Your task to perform on an android device: turn on showing notifications on the lock screen Image 0: 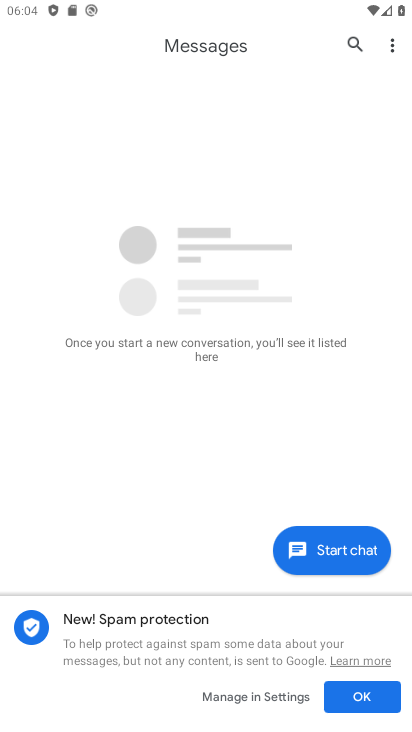
Step 0: press home button
Your task to perform on an android device: turn on showing notifications on the lock screen Image 1: 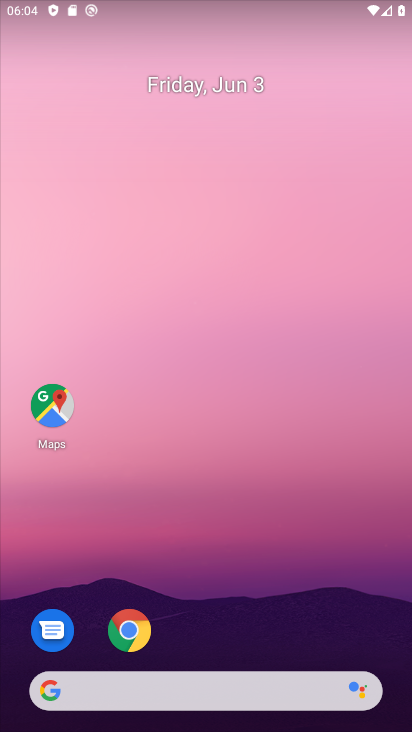
Step 1: drag from (187, 615) to (251, 180)
Your task to perform on an android device: turn on showing notifications on the lock screen Image 2: 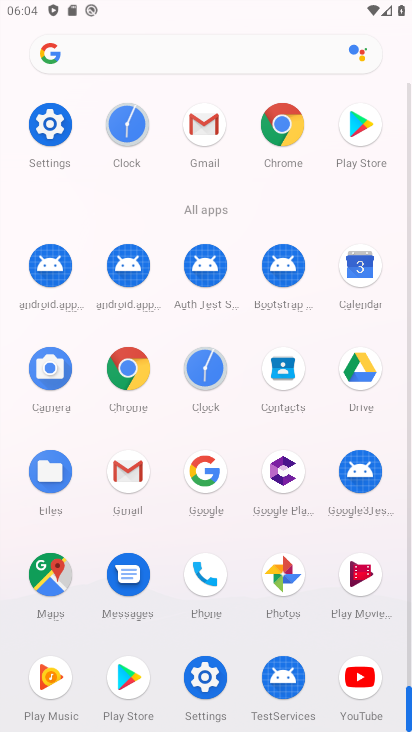
Step 2: click (44, 149)
Your task to perform on an android device: turn on showing notifications on the lock screen Image 3: 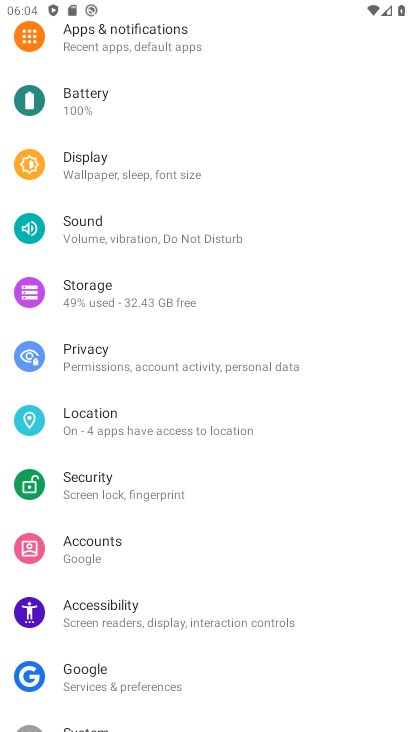
Step 3: click (159, 57)
Your task to perform on an android device: turn on showing notifications on the lock screen Image 4: 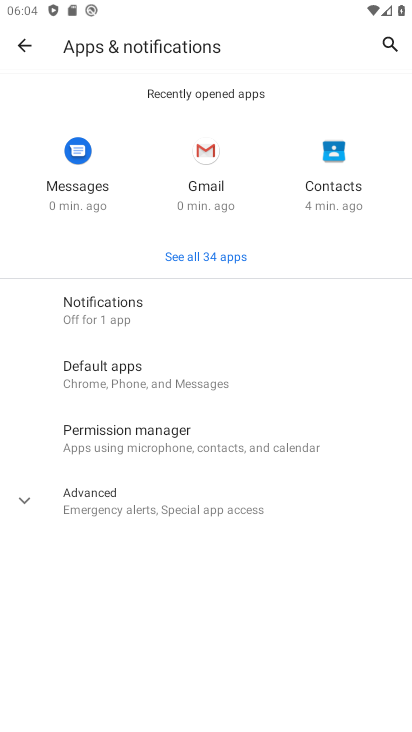
Step 4: click (105, 324)
Your task to perform on an android device: turn on showing notifications on the lock screen Image 5: 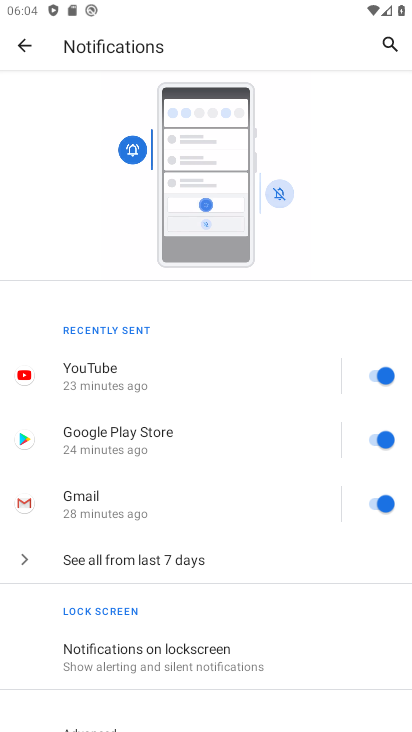
Step 5: click (84, 661)
Your task to perform on an android device: turn on showing notifications on the lock screen Image 6: 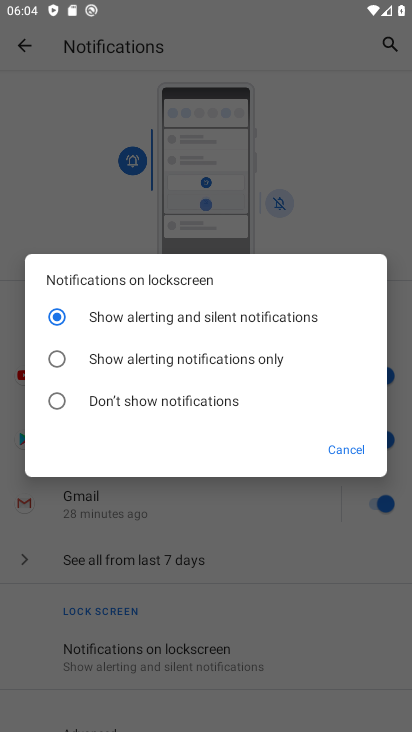
Step 6: task complete